Your task to perform on an android device: delete a single message in the gmail app Image 0: 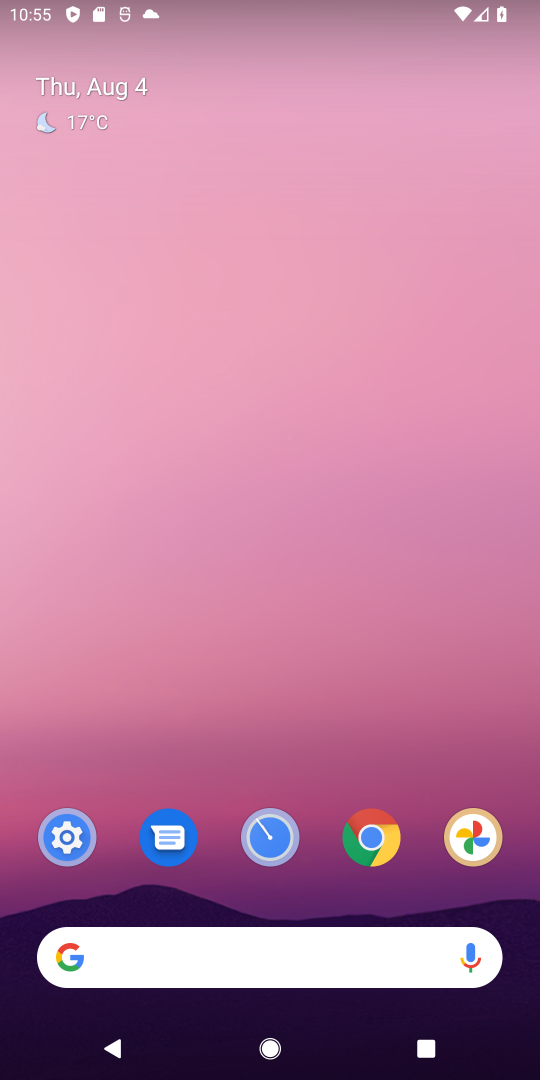
Step 0: drag from (448, 818) to (277, 97)
Your task to perform on an android device: delete a single message in the gmail app Image 1: 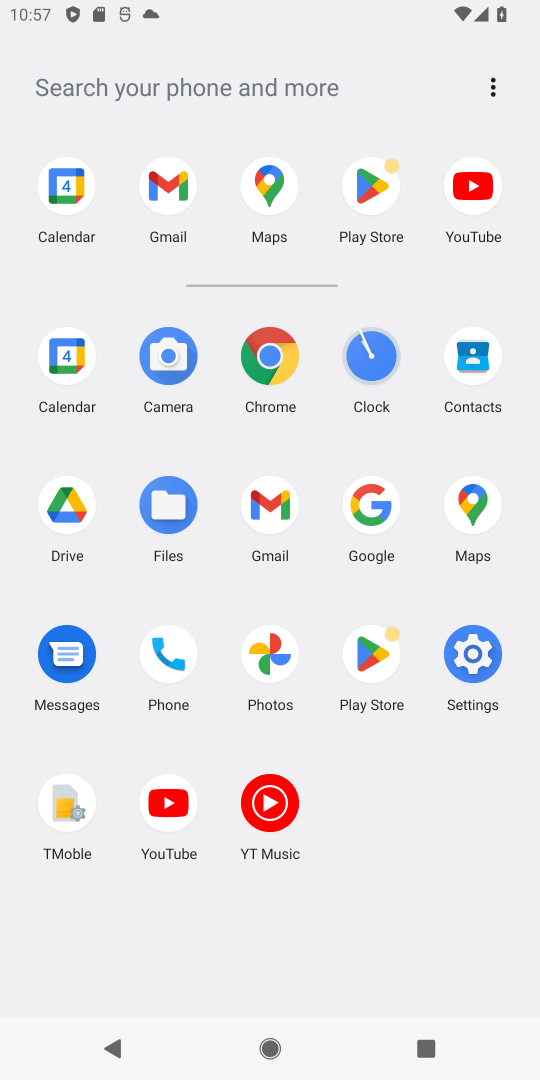
Step 1: click (248, 503)
Your task to perform on an android device: delete a single message in the gmail app Image 2: 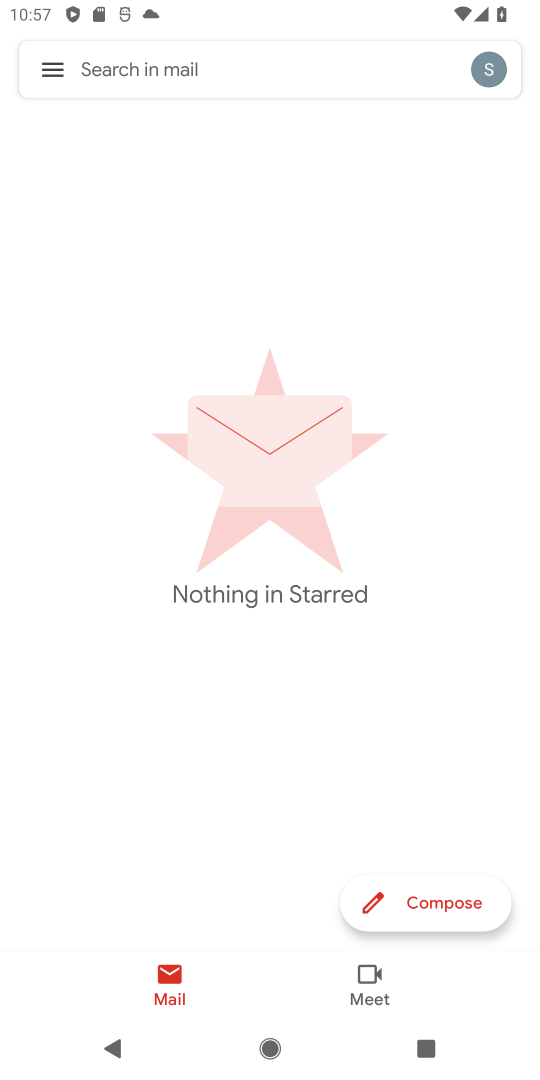
Step 2: task complete